Your task to perform on an android device: Show me productivity apps on the Play Store Image 0: 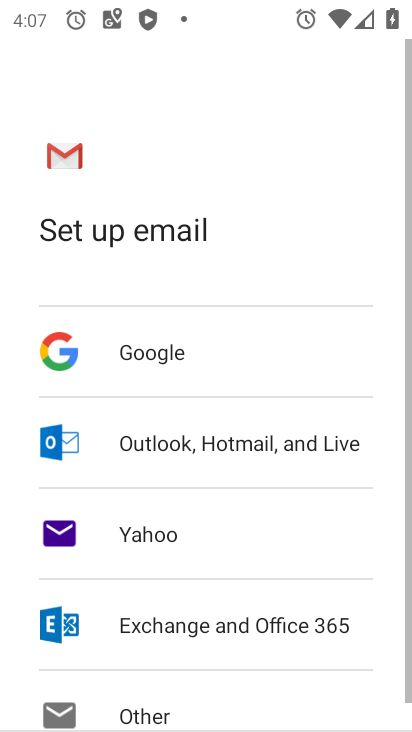
Step 0: press home button
Your task to perform on an android device: Show me productivity apps on the Play Store Image 1: 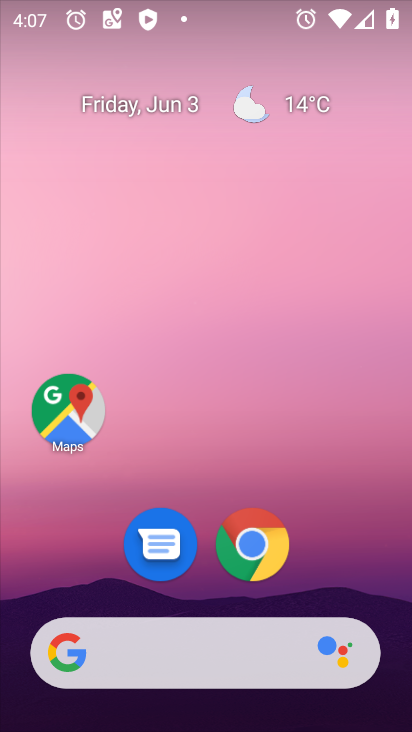
Step 1: drag from (379, 610) to (276, 64)
Your task to perform on an android device: Show me productivity apps on the Play Store Image 2: 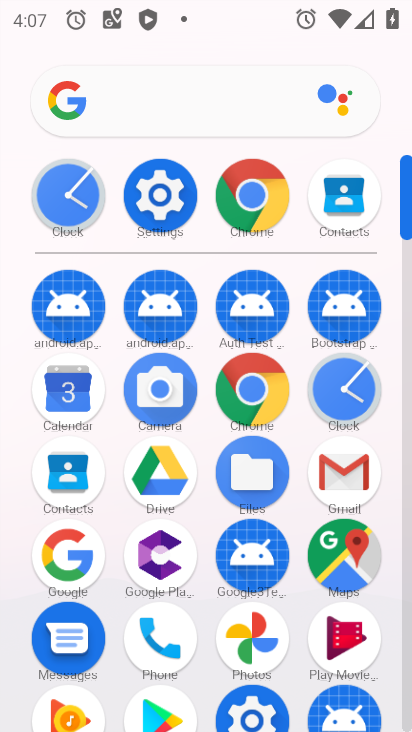
Step 2: click (406, 727)
Your task to perform on an android device: Show me productivity apps on the Play Store Image 3: 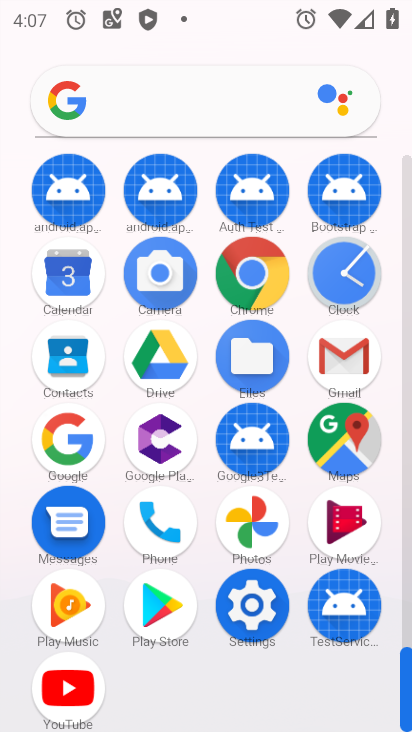
Step 3: click (164, 602)
Your task to perform on an android device: Show me productivity apps on the Play Store Image 4: 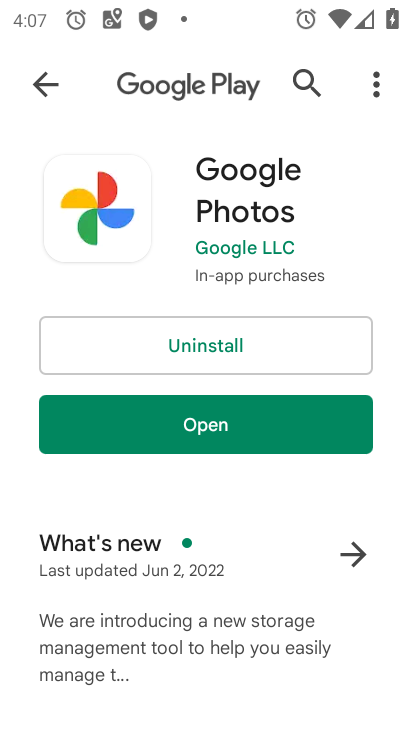
Step 4: press back button
Your task to perform on an android device: Show me productivity apps on the Play Store Image 5: 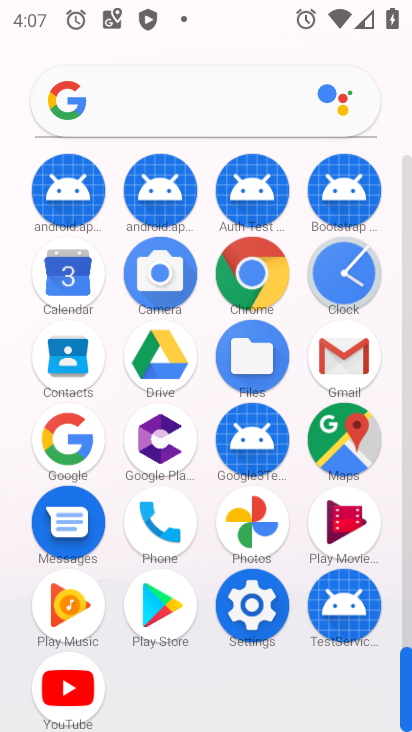
Step 5: click (171, 602)
Your task to perform on an android device: Show me productivity apps on the Play Store Image 6: 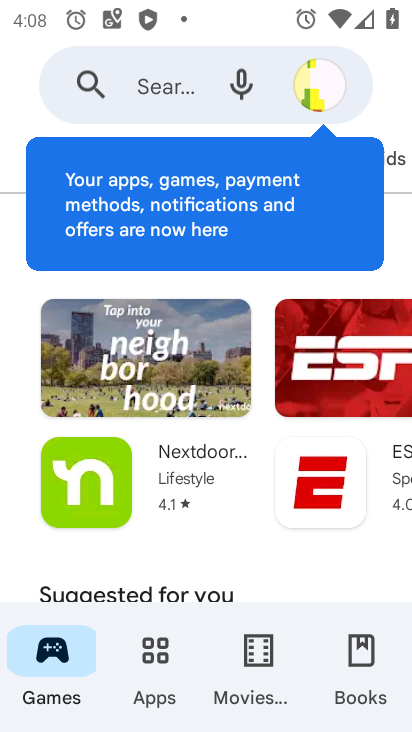
Step 6: click (152, 641)
Your task to perform on an android device: Show me productivity apps on the Play Store Image 7: 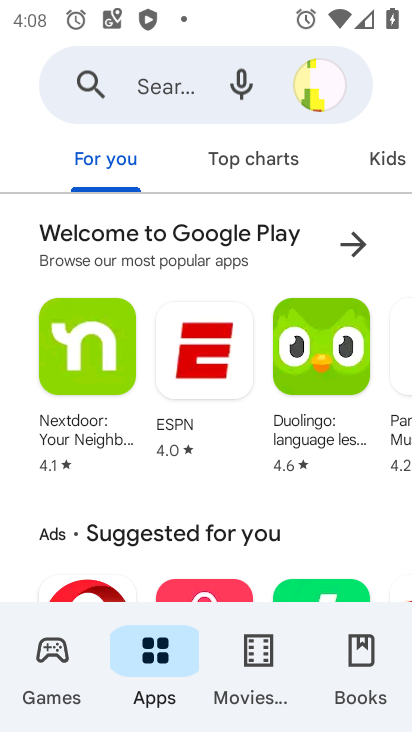
Step 7: drag from (391, 154) to (178, 164)
Your task to perform on an android device: Show me productivity apps on the Play Store Image 8: 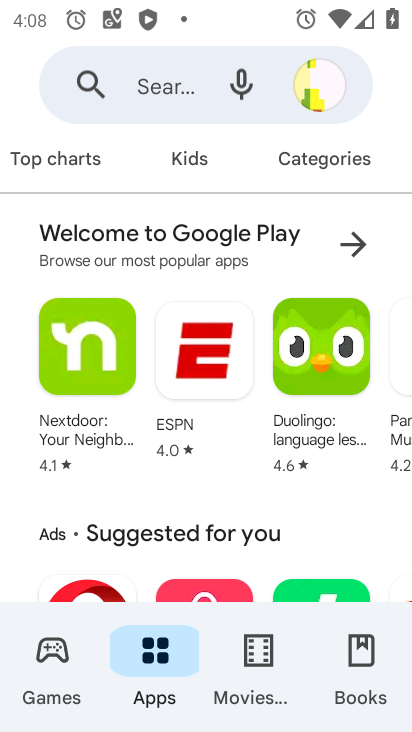
Step 8: click (174, 533)
Your task to perform on an android device: Show me productivity apps on the Play Store Image 9: 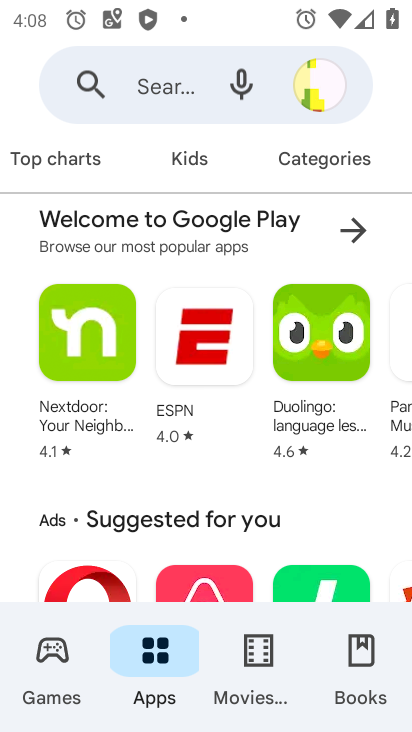
Step 9: click (339, 149)
Your task to perform on an android device: Show me productivity apps on the Play Store Image 10: 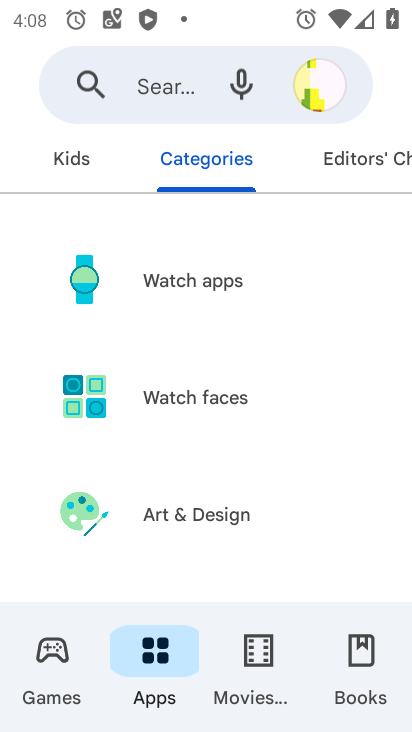
Step 10: drag from (304, 530) to (262, 153)
Your task to perform on an android device: Show me productivity apps on the Play Store Image 11: 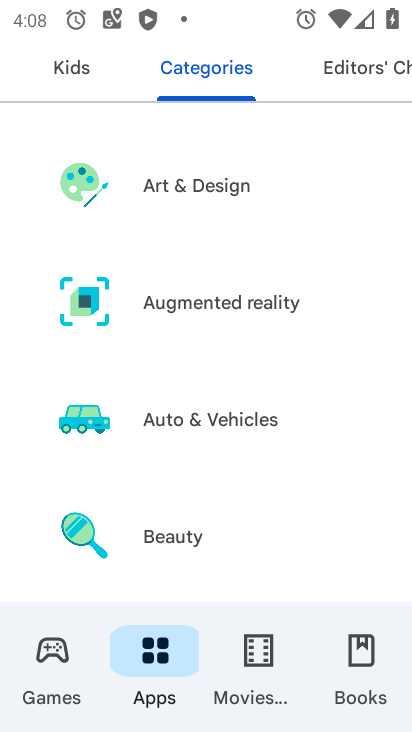
Step 11: drag from (282, 531) to (289, 119)
Your task to perform on an android device: Show me productivity apps on the Play Store Image 12: 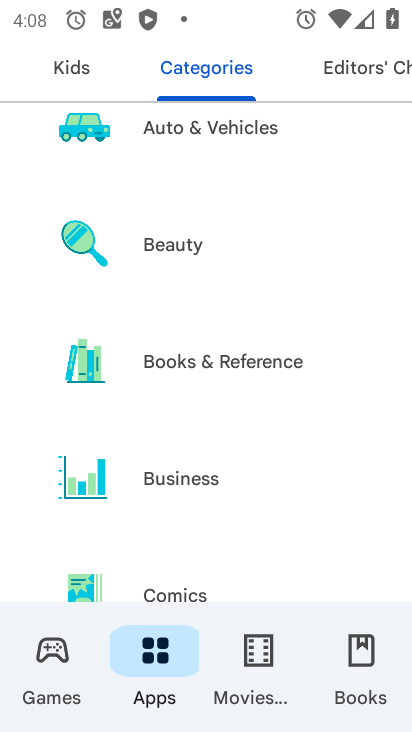
Step 12: drag from (267, 528) to (281, 95)
Your task to perform on an android device: Show me productivity apps on the Play Store Image 13: 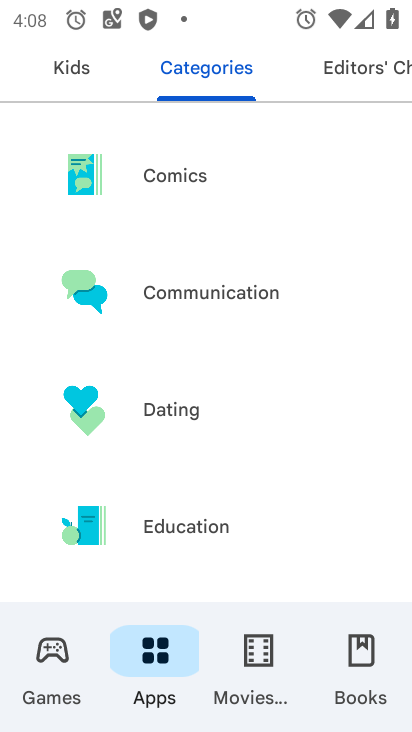
Step 13: drag from (270, 531) to (258, 88)
Your task to perform on an android device: Show me productivity apps on the Play Store Image 14: 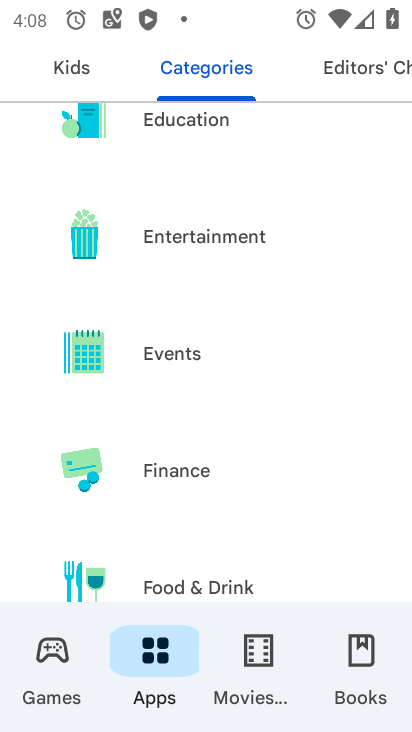
Step 14: drag from (275, 545) to (272, 168)
Your task to perform on an android device: Show me productivity apps on the Play Store Image 15: 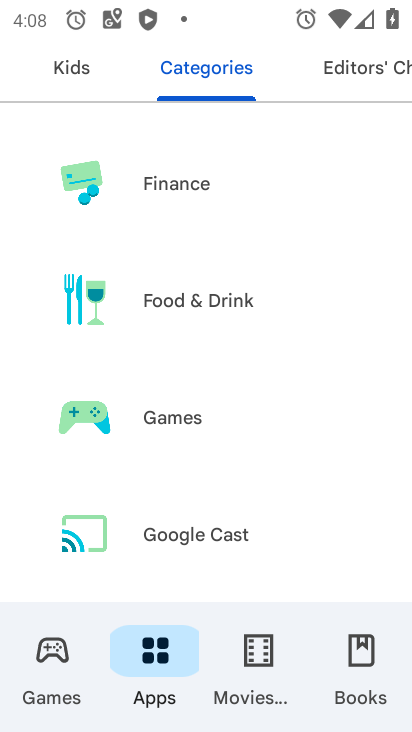
Step 15: drag from (279, 529) to (255, 1)
Your task to perform on an android device: Show me productivity apps on the Play Store Image 16: 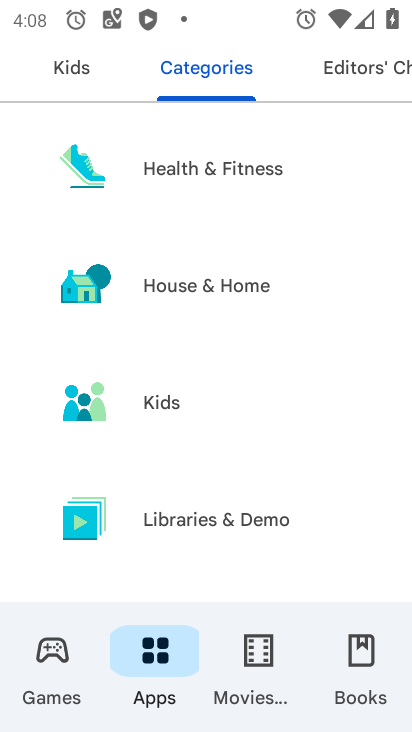
Step 16: drag from (297, 495) to (237, 84)
Your task to perform on an android device: Show me productivity apps on the Play Store Image 17: 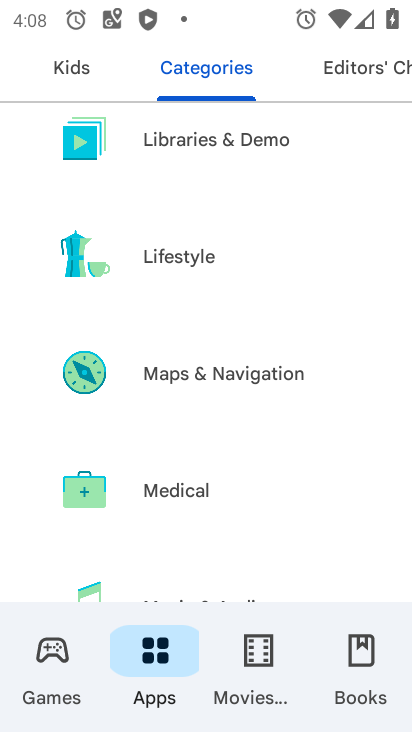
Step 17: drag from (279, 518) to (307, 19)
Your task to perform on an android device: Show me productivity apps on the Play Store Image 18: 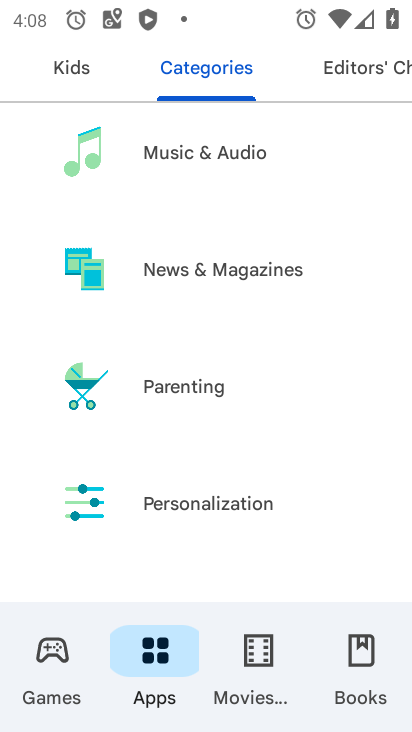
Step 18: drag from (307, 518) to (288, 298)
Your task to perform on an android device: Show me productivity apps on the Play Store Image 19: 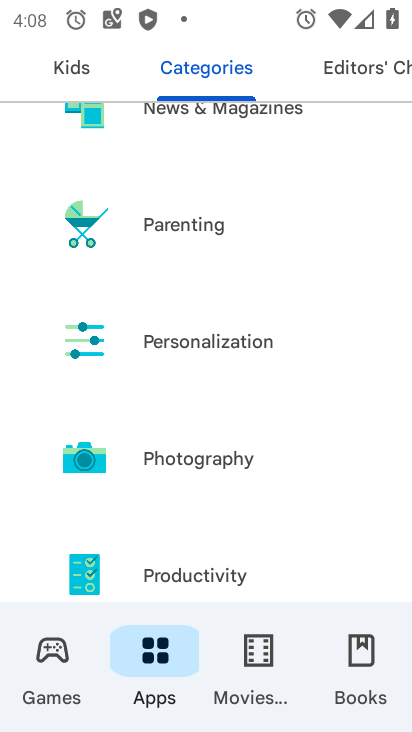
Step 19: drag from (300, 549) to (266, 253)
Your task to perform on an android device: Show me productivity apps on the Play Store Image 20: 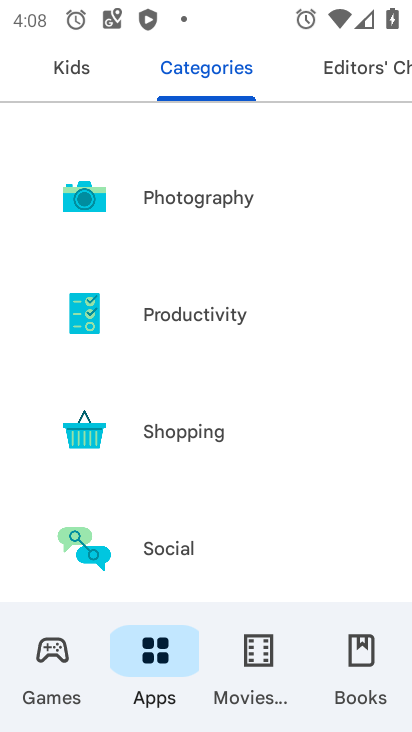
Step 20: click (180, 328)
Your task to perform on an android device: Show me productivity apps on the Play Store Image 21: 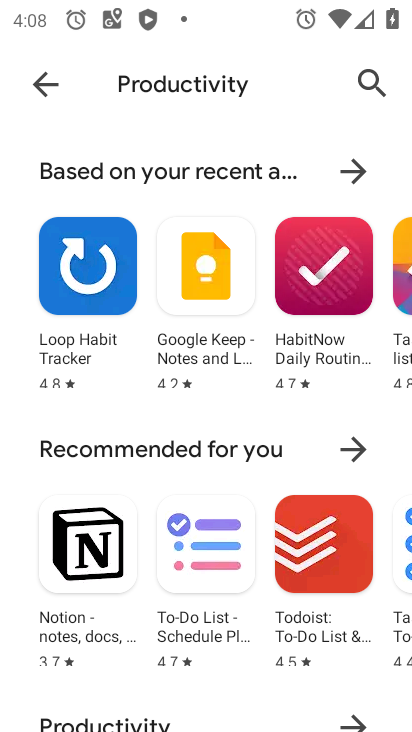
Step 21: drag from (269, 481) to (240, 129)
Your task to perform on an android device: Show me productivity apps on the Play Store Image 22: 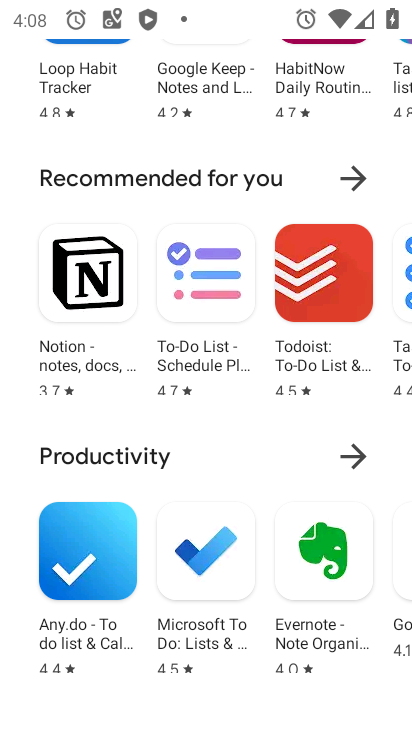
Step 22: drag from (280, 548) to (263, 359)
Your task to perform on an android device: Show me productivity apps on the Play Store Image 23: 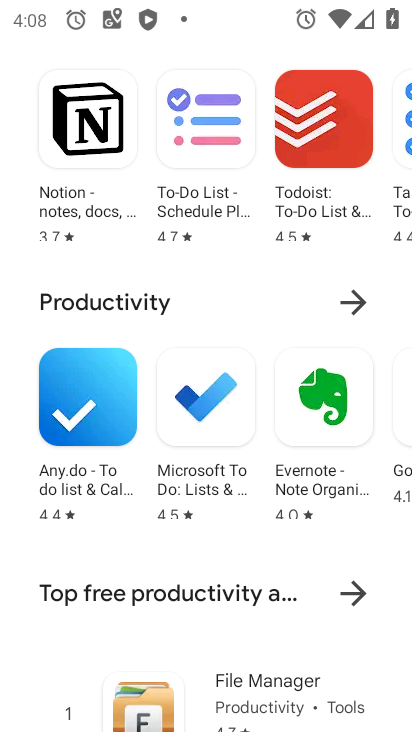
Step 23: click (347, 301)
Your task to perform on an android device: Show me productivity apps on the Play Store Image 24: 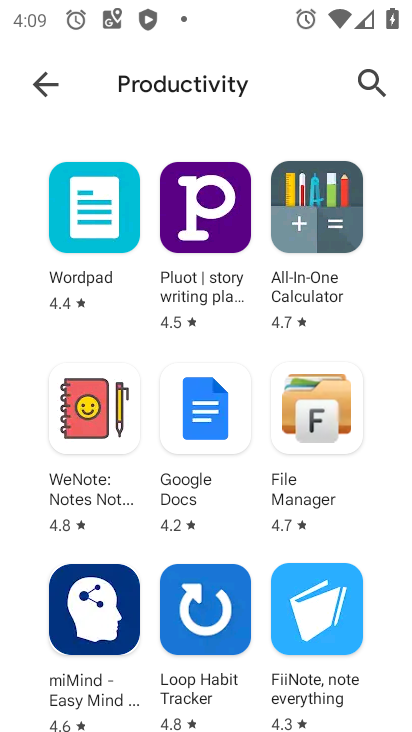
Step 24: task complete